Your task to perform on an android device: Go to sound settings Image 0: 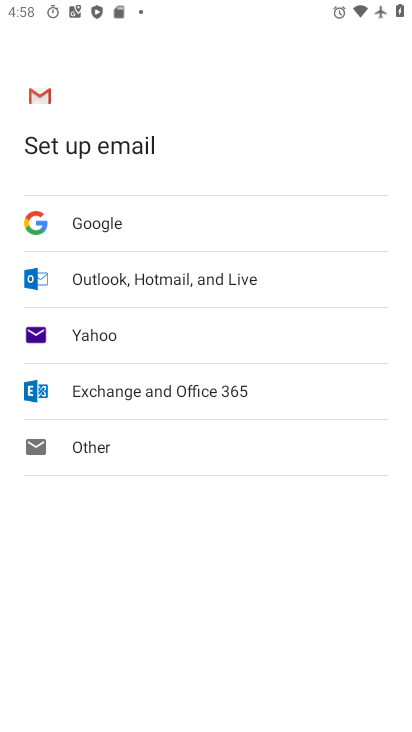
Step 0: press back button
Your task to perform on an android device: Go to sound settings Image 1: 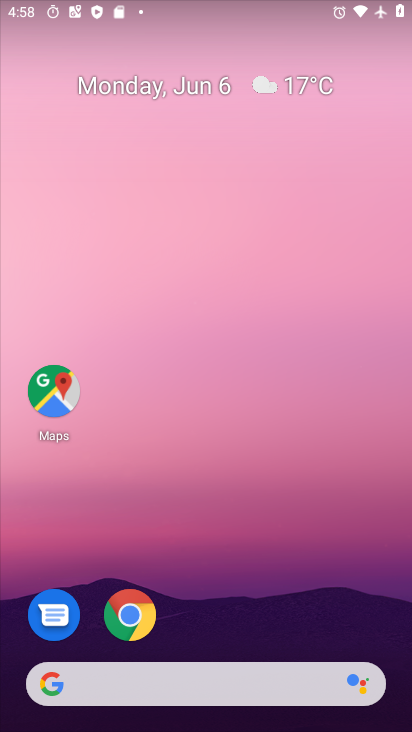
Step 1: drag from (230, 579) to (183, 32)
Your task to perform on an android device: Go to sound settings Image 2: 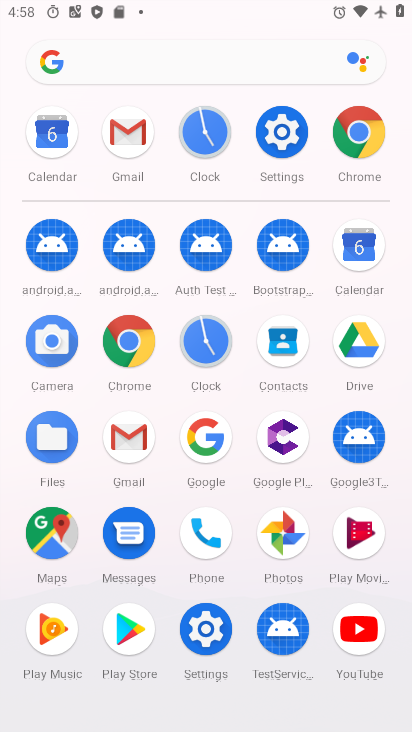
Step 2: drag from (7, 531) to (11, 185)
Your task to perform on an android device: Go to sound settings Image 3: 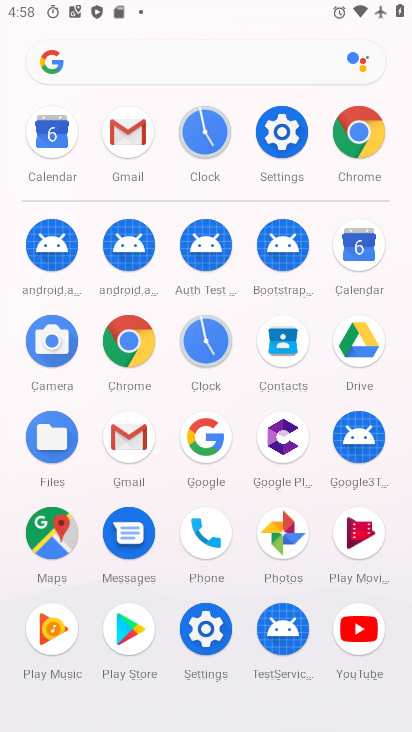
Step 3: drag from (3, 601) to (6, 233)
Your task to perform on an android device: Go to sound settings Image 4: 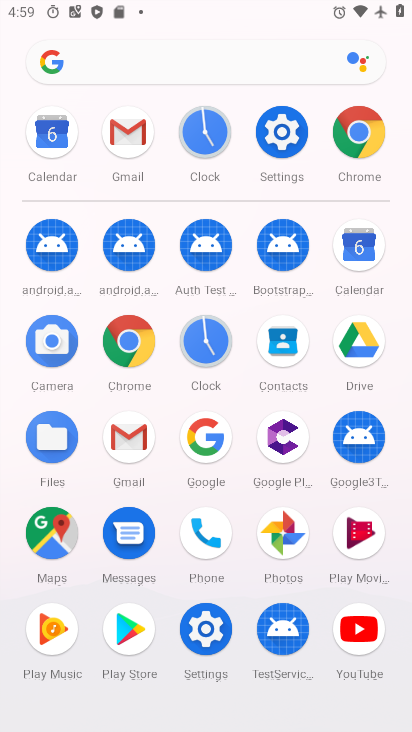
Step 4: click (206, 625)
Your task to perform on an android device: Go to sound settings Image 5: 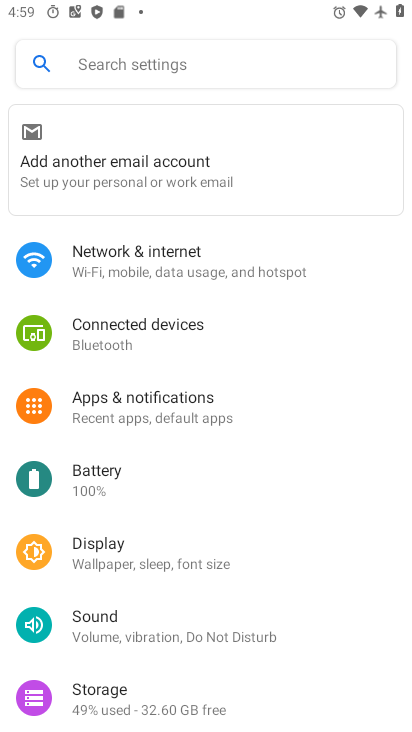
Step 5: drag from (187, 585) to (250, 267)
Your task to perform on an android device: Go to sound settings Image 6: 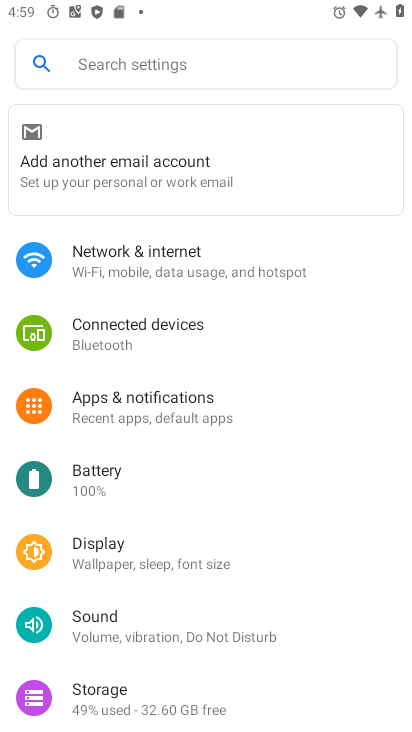
Step 6: click (131, 627)
Your task to perform on an android device: Go to sound settings Image 7: 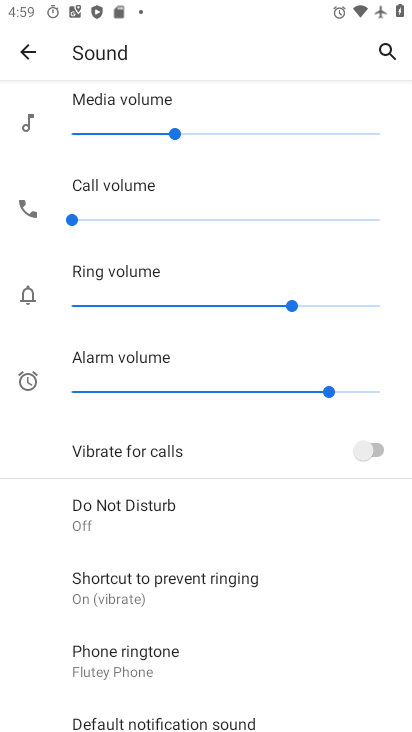
Step 7: task complete